Your task to perform on an android device: set the stopwatch Image 0: 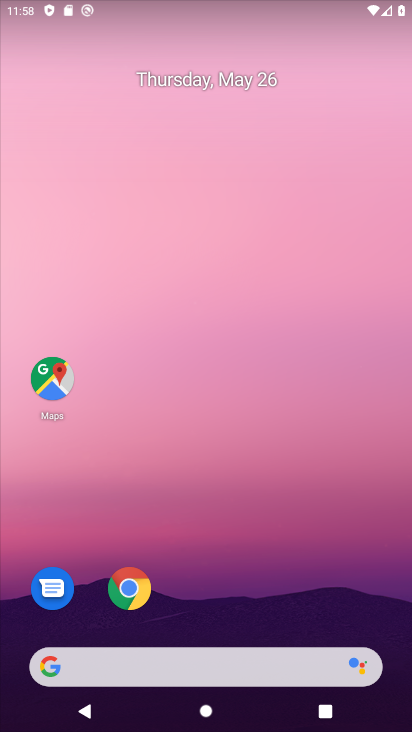
Step 0: drag from (234, 599) to (198, 284)
Your task to perform on an android device: set the stopwatch Image 1: 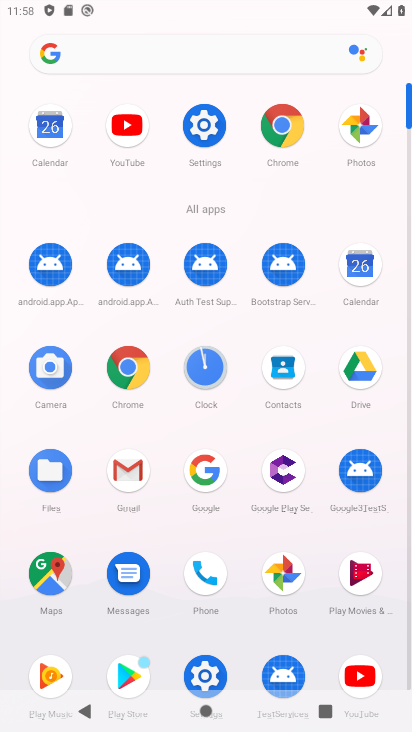
Step 1: click (197, 382)
Your task to perform on an android device: set the stopwatch Image 2: 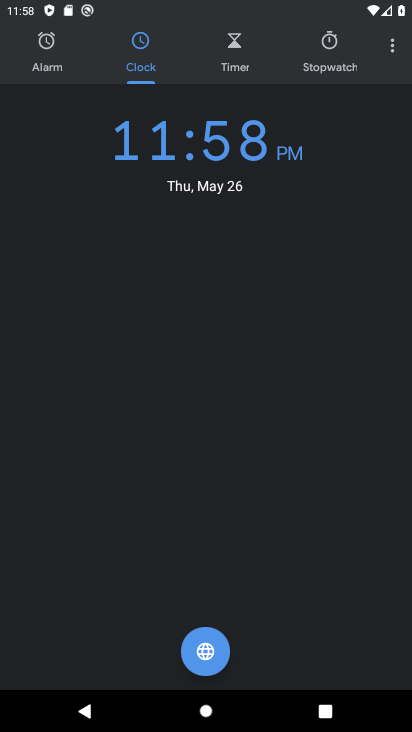
Step 2: click (330, 48)
Your task to perform on an android device: set the stopwatch Image 3: 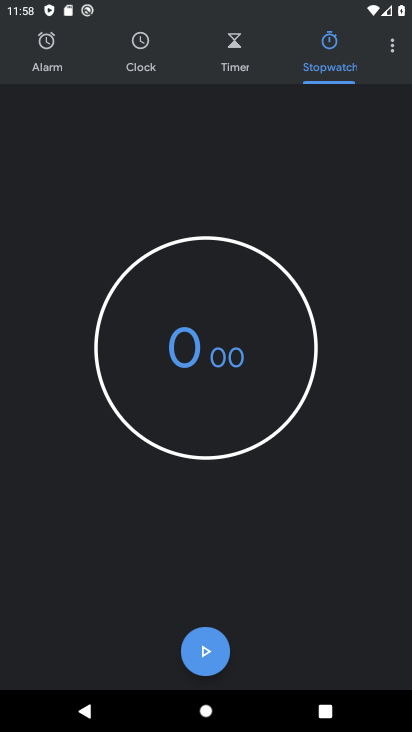
Step 3: click (203, 663)
Your task to perform on an android device: set the stopwatch Image 4: 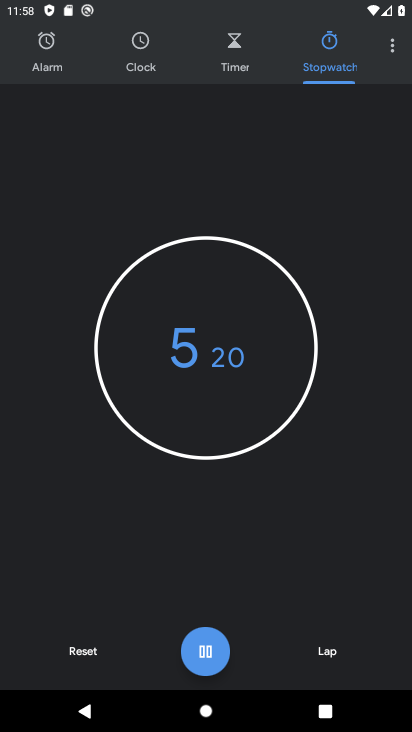
Step 4: click (207, 653)
Your task to perform on an android device: set the stopwatch Image 5: 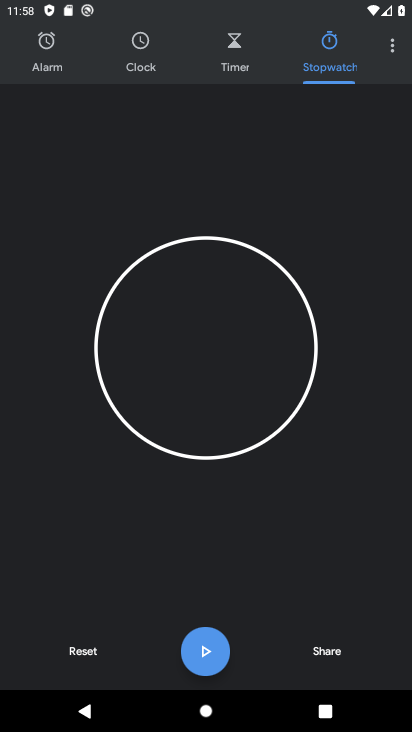
Step 5: task complete